Your task to perform on an android device: Open display settings Image 0: 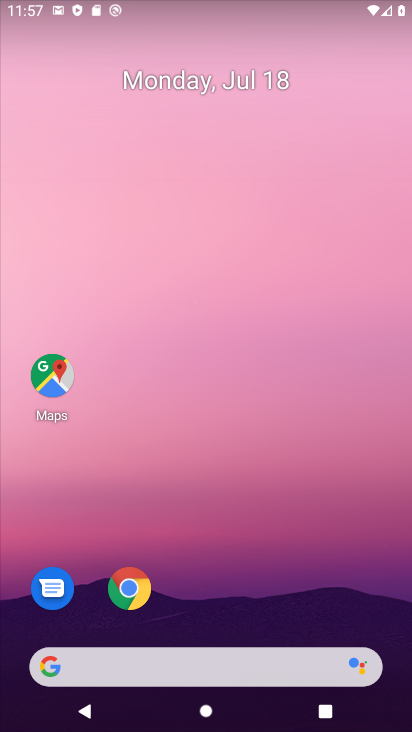
Step 0: drag from (337, 641) to (219, 149)
Your task to perform on an android device: Open display settings Image 1: 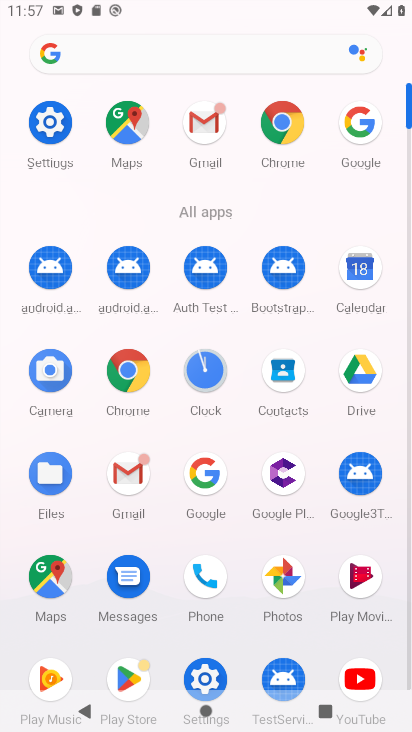
Step 1: click (208, 669)
Your task to perform on an android device: Open display settings Image 2: 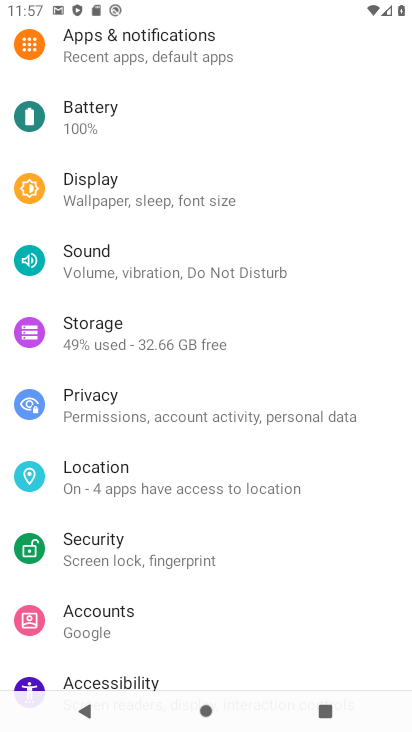
Step 2: click (134, 199)
Your task to perform on an android device: Open display settings Image 3: 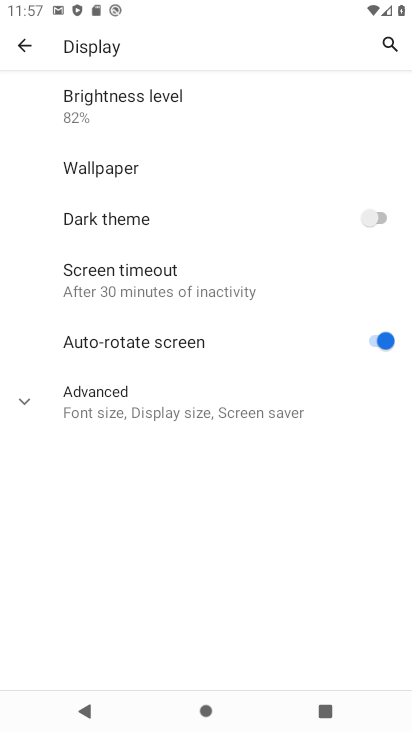
Step 3: task complete